Your task to perform on an android device: turn on bluetooth scan Image 0: 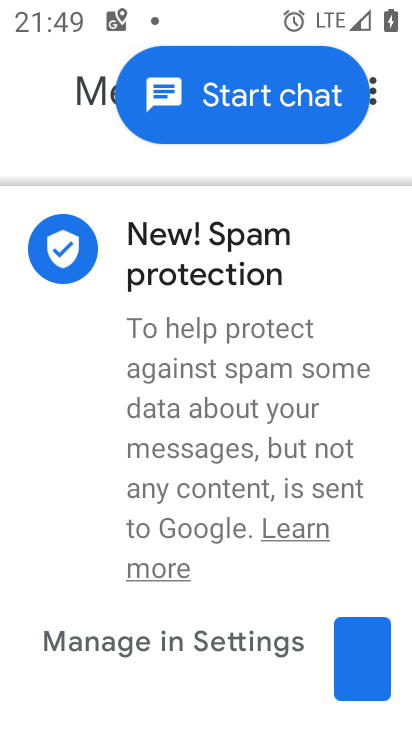
Step 0: press home button
Your task to perform on an android device: turn on bluetooth scan Image 1: 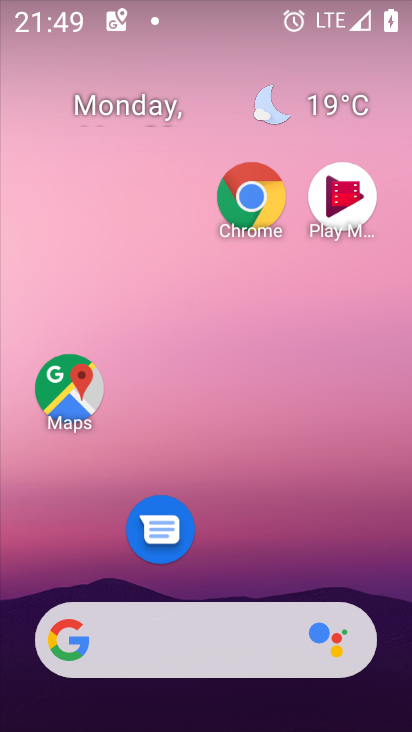
Step 1: drag from (218, 578) to (141, 49)
Your task to perform on an android device: turn on bluetooth scan Image 2: 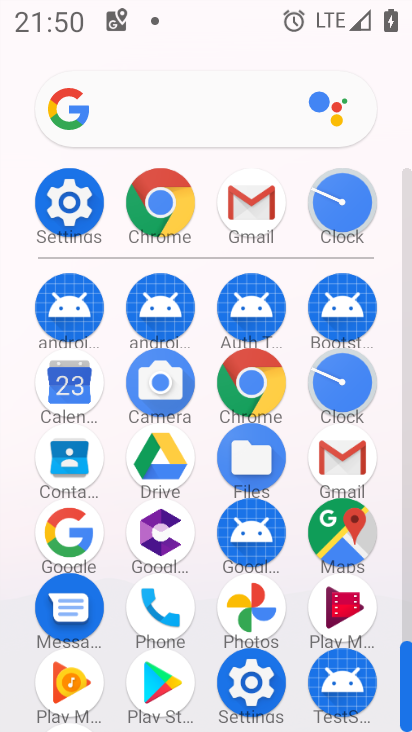
Step 2: click (60, 210)
Your task to perform on an android device: turn on bluetooth scan Image 3: 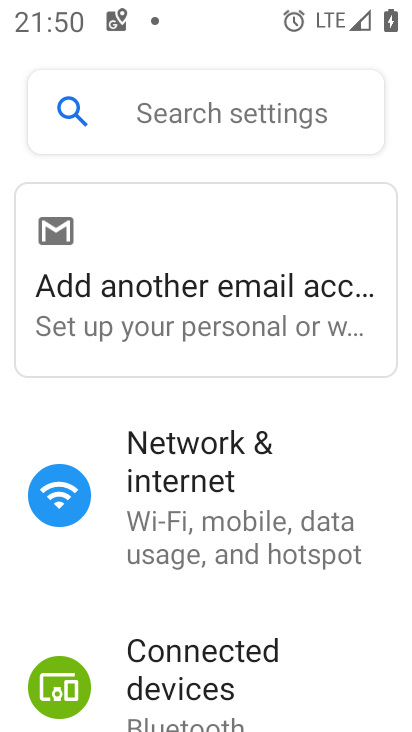
Step 3: drag from (190, 701) to (193, 310)
Your task to perform on an android device: turn on bluetooth scan Image 4: 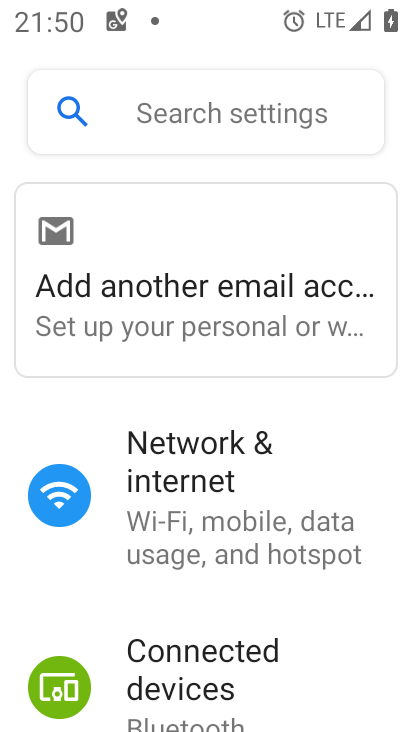
Step 4: drag from (267, 655) to (265, 295)
Your task to perform on an android device: turn on bluetooth scan Image 5: 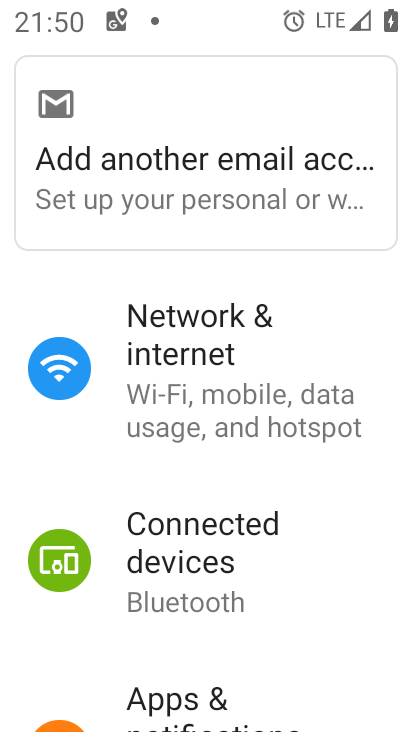
Step 5: drag from (280, 684) to (248, 194)
Your task to perform on an android device: turn on bluetooth scan Image 6: 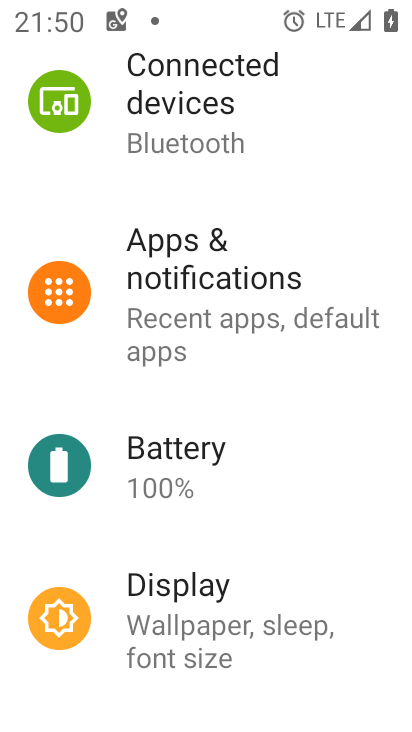
Step 6: drag from (214, 617) to (224, 172)
Your task to perform on an android device: turn on bluetooth scan Image 7: 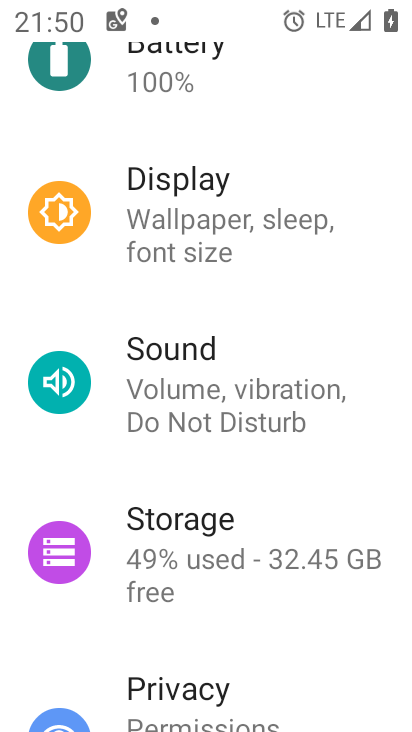
Step 7: drag from (205, 651) to (226, 242)
Your task to perform on an android device: turn on bluetooth scan Image 8: 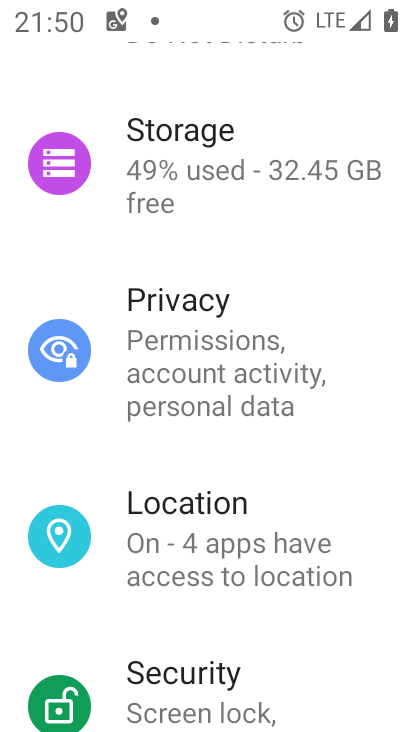
Step 8: drag from (198, 643) to (207, 299)
Your task to perform on an android device: turn on bluetooth scan Image 9: 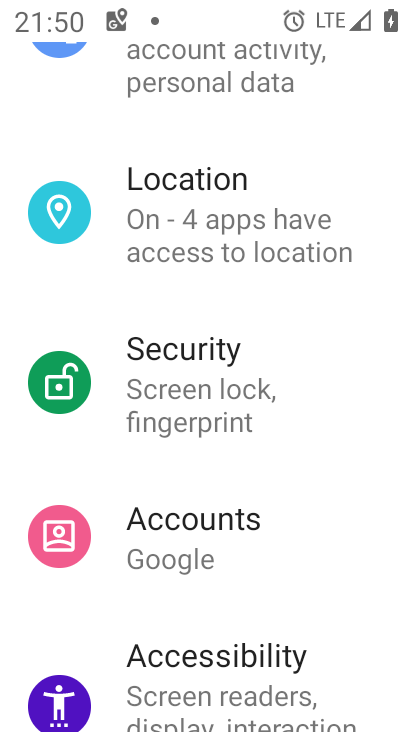
Step 9: click (196, 226)
Your task to perform on an android device: turn on bluetooth scan Image 10: 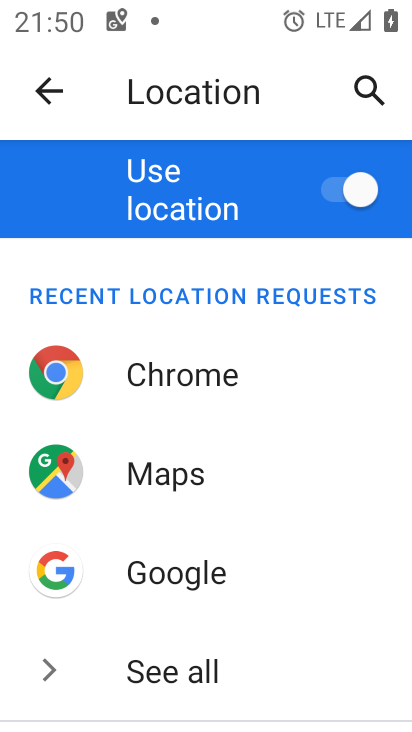
Step 10: drag from (169, 699) to (114, 259)
Your task to perform on an android device: turn on bluetooth scan Image 11: 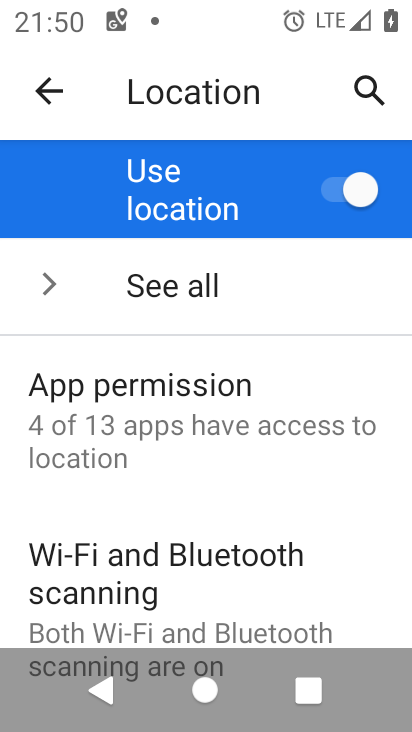
Step 11: click (143, 609)
Your task to perform on an android device: turn on bluetooth scan Image 12: 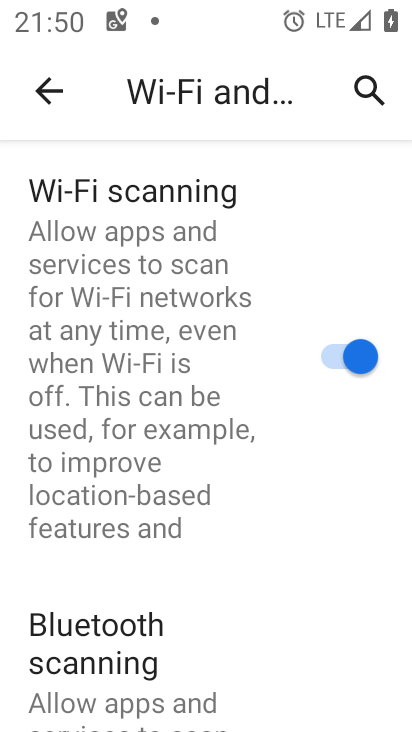
Step 12: click (147, 676)
Your task to perform on an android device: turn on bluetooth scan Image 13: 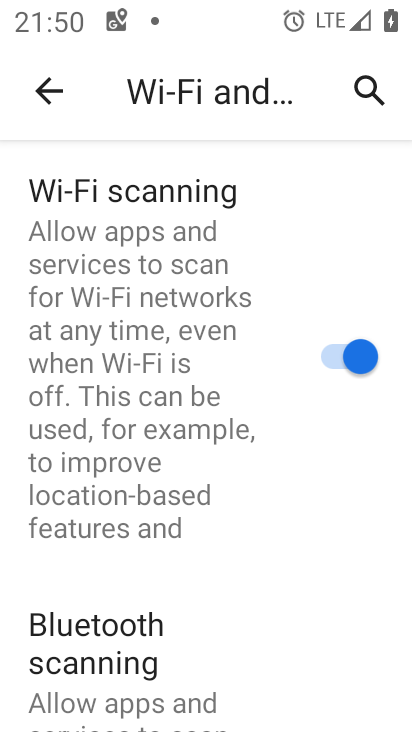
Step 13: drag from (157, 478) to (111, 175)
Your task to perform on an android device: turn on bluetooth scan Image 14: 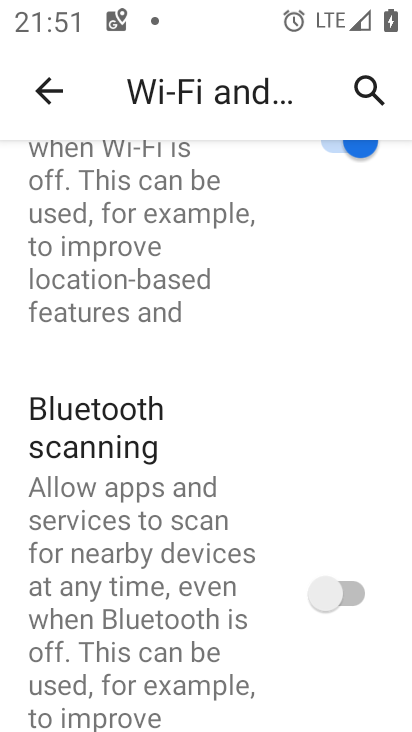
Step 14: click (355, 601)
Your task to perform on an android device: turn on bluetooth scan Image 15: 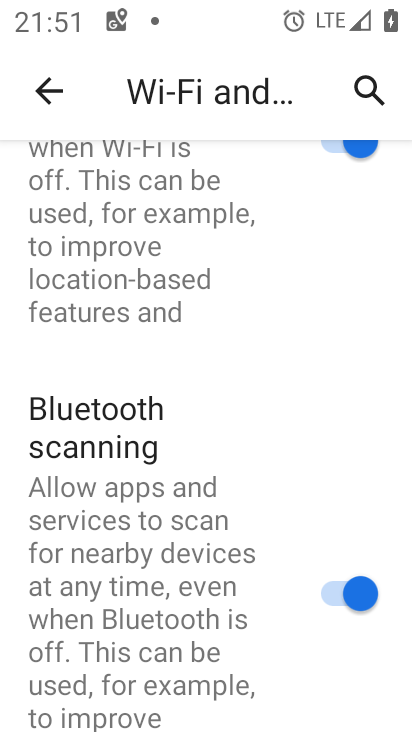
Step 15: task complete